Your task to perform on an android device: delete browsing data in the chrome app Image 0: 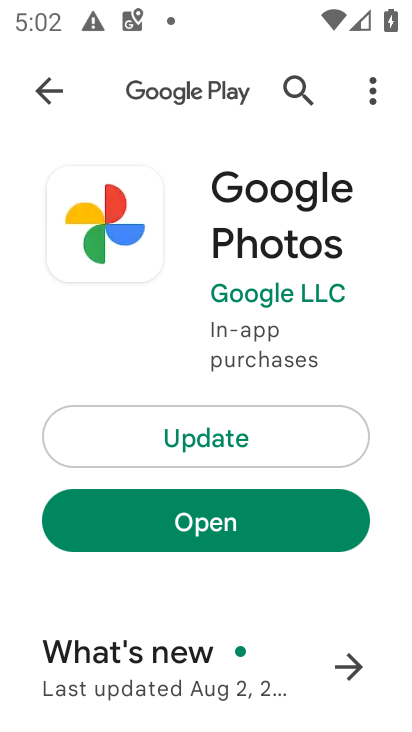
Step 0: press home button
Your task to perform on an android device: delete browsing data in the chrome app Image 1: 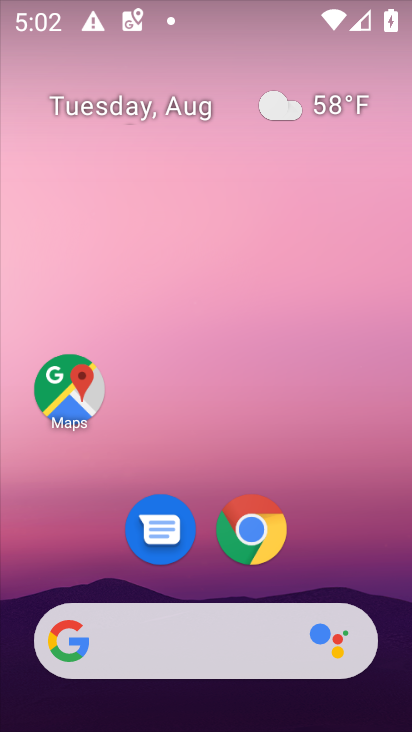
Step 1: click (240, 512)
Your task to perform on an android device: delete browsing data in the chrome app Image 2: 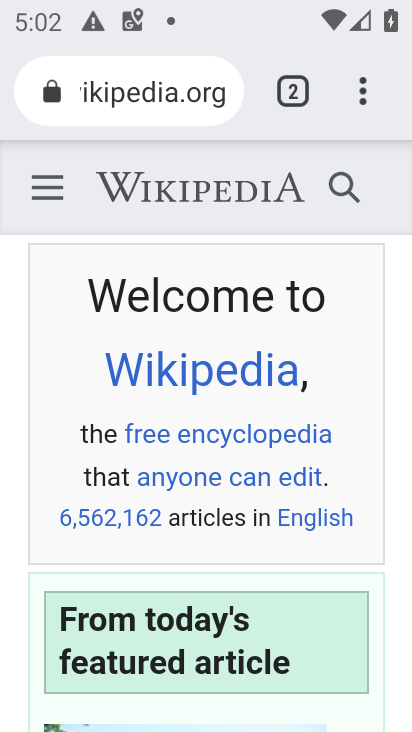
Step 2: click (368, 90)
Your task to perform on an android device: delete browsing data in the chrome app Image 3: 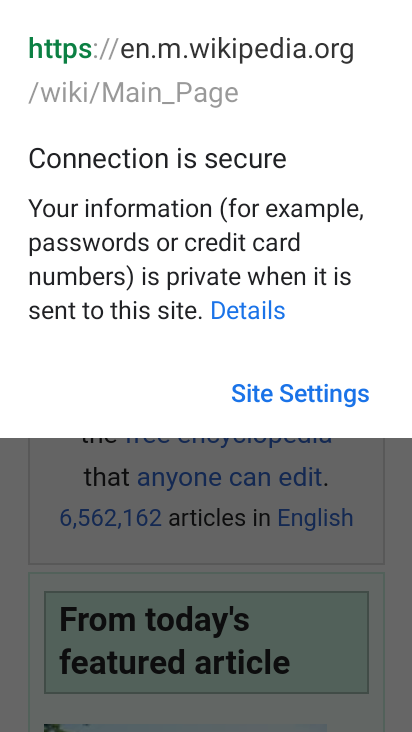
Step 3: click (327, 471)
Your task to perform on an android device: delete browsing data in the chrome app Image 4: 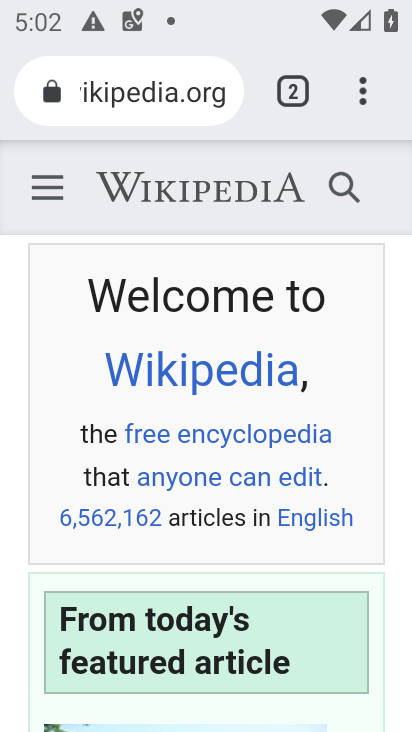
Step 4: click (354, 99)
Your task to perform on an android device: delete browsing data in the chrome app Image 5: 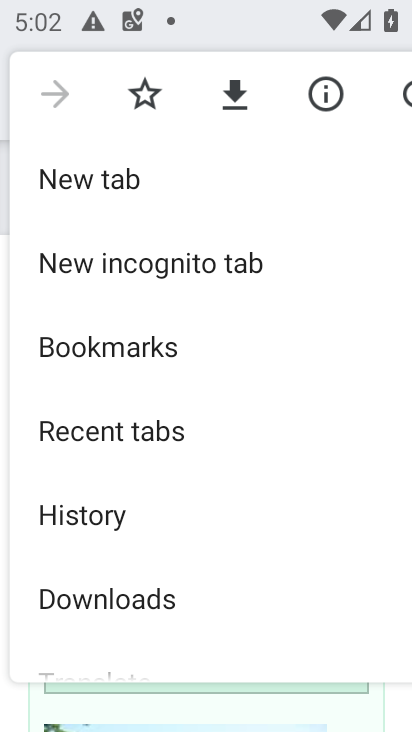
Step 5: click (109, 505)
Your task to perform on an android device: delete browsing data in the chrome app Image 6: 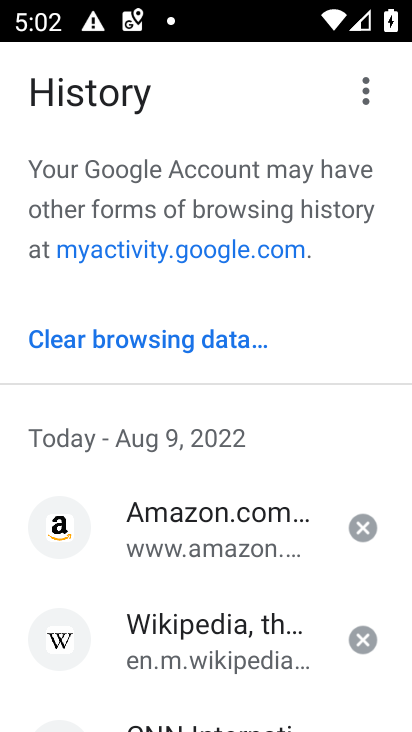
Step 6: click (134, 328)
Your task to perform on an android device: delete browsing data in the chrome app Image 7: 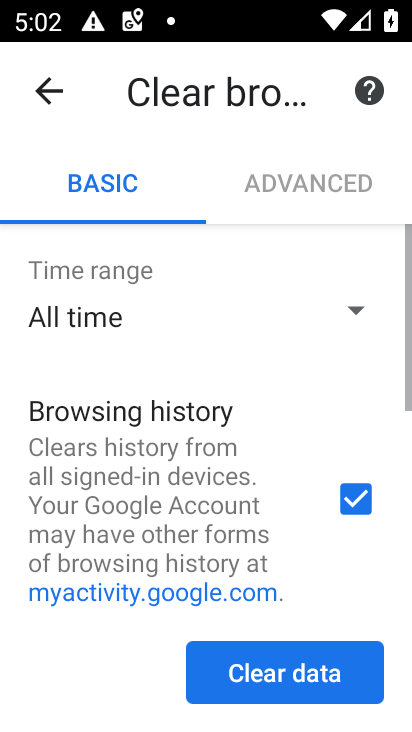
Step 7: drag from (216, 567) to (235, 233)
Your task to perform on an android device: delete browsing data in the chrome app Image 8: 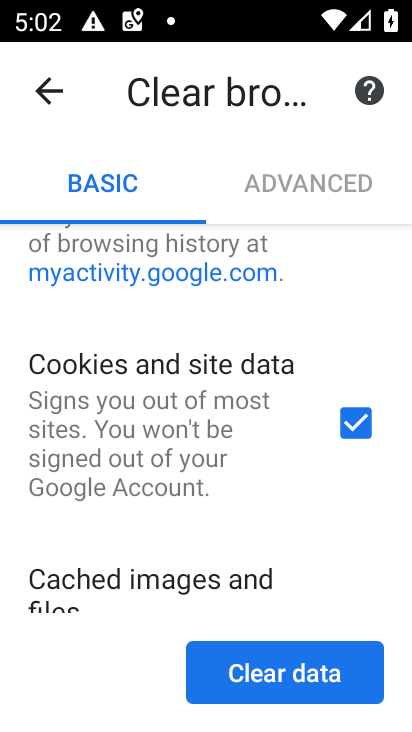
Step 8: drag from (269, 567) to (286, 276)
Your task to perform on an android device: delete browsing data in the chrome app Image 9: 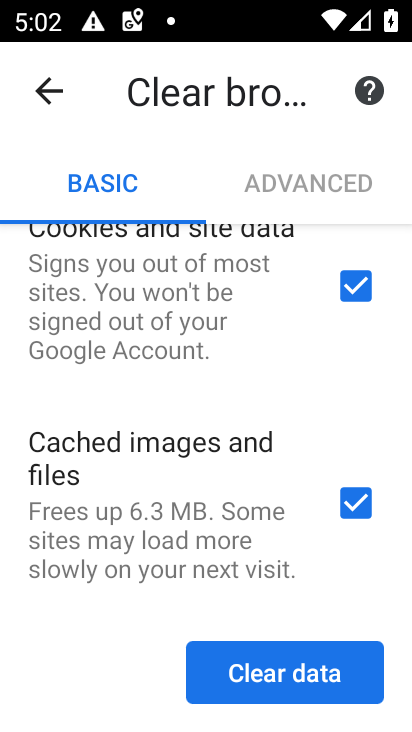
Step 9: click (311, 675)
Your task to perform on an android device: delete browsing data in the chrome app Image 10: 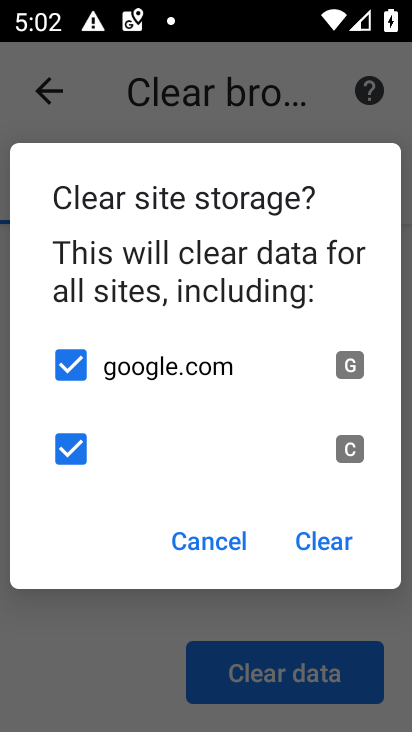
Step 10: click (315, 538)
Your task to perform on an android device: delete browsing data in the chrome app Image 11: 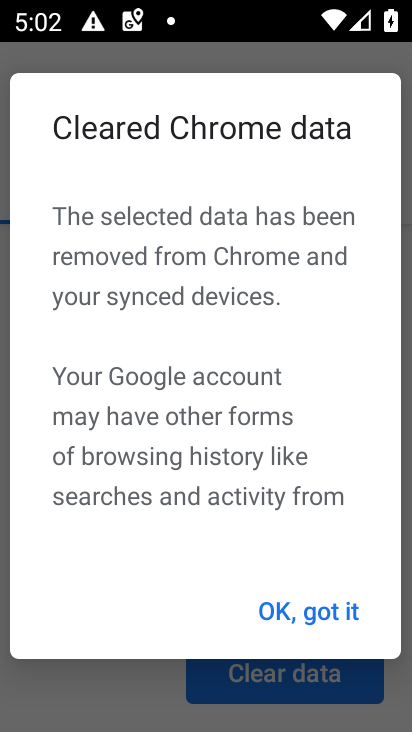
Step 11: click (305, 599)
Your task to perform on an android device: delete browsing data in the chrome app Image 12: 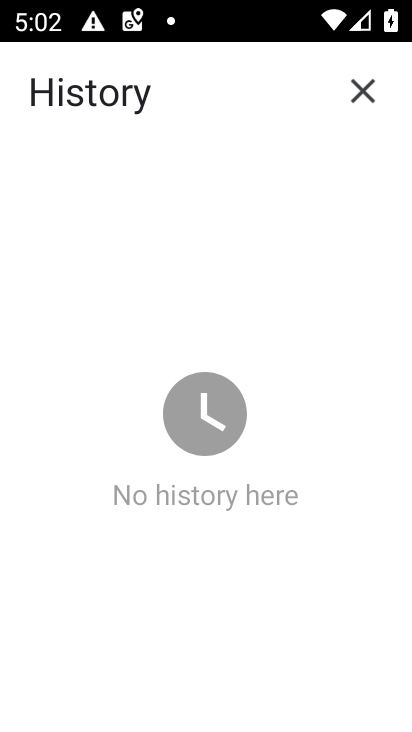
Step 12: task complete